Your task to perform on an android device: Go to location settings Image 0: 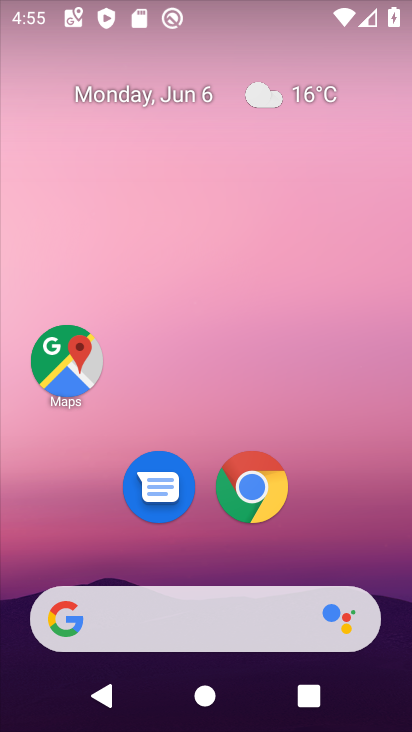
Step 0: drag from (322, 527) to (338, 18)
Your task to perform on an android device: Go to location settings Image 1: 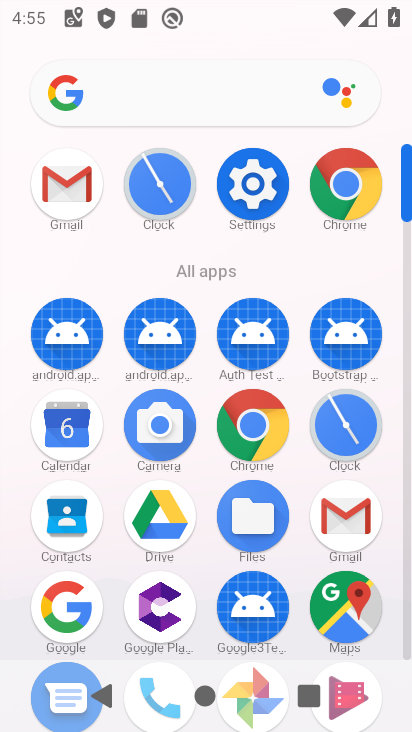
Step 1: click (246, 164)
Your task to perform on an android device: Go to location settings Image 2: 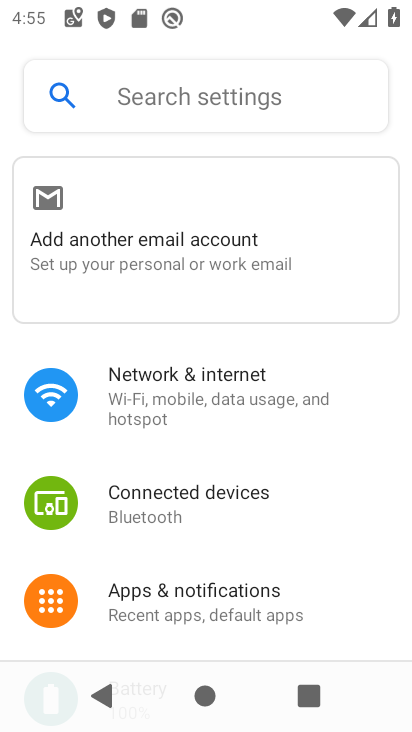
Step 2: drag from (317, 573) to (314, 27)
Your task to perform on an android device: Go to location settings Image 3: 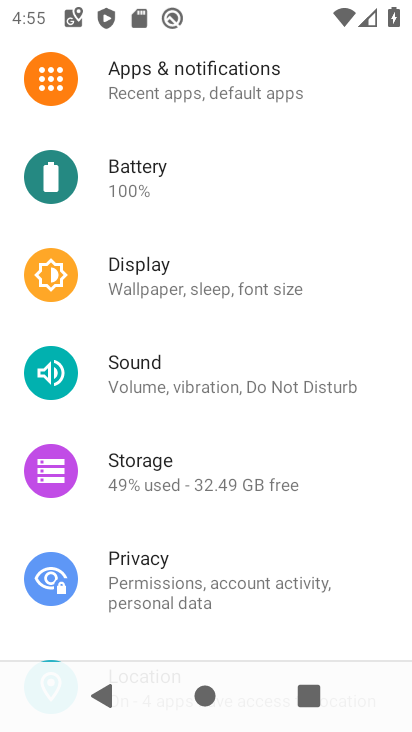
Step 3: drag from (319, 428) to (311, 86)
Your task to perform on an android device: Go to location settings Image 4: 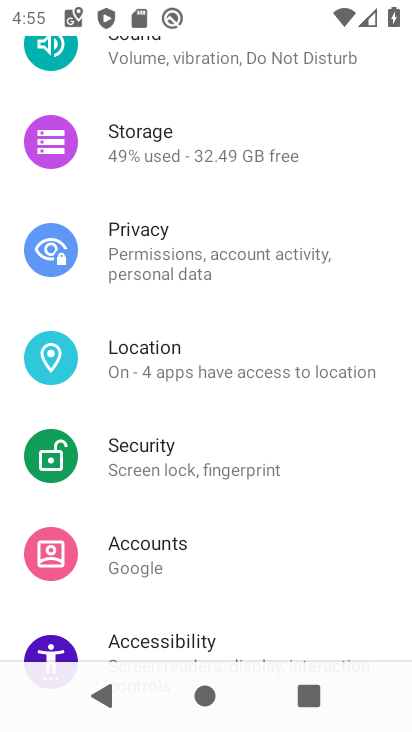
Step 4: click (252, 360)
Your task to perform on an android device: Go to location settings Image 5: 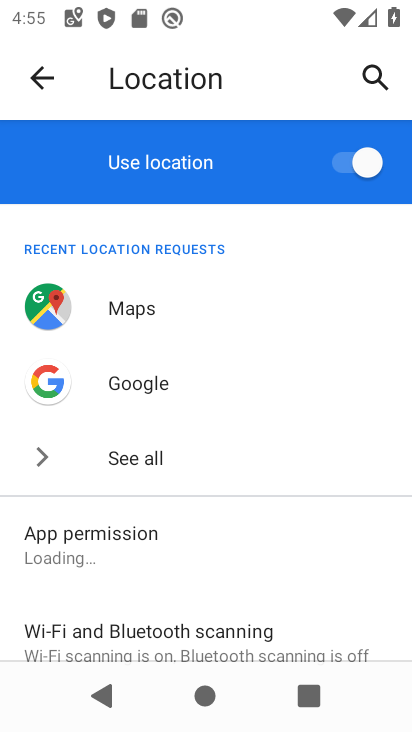
Step 5: task complete